Your task to perform on an android device: Go to Yahoo.com Image 0: 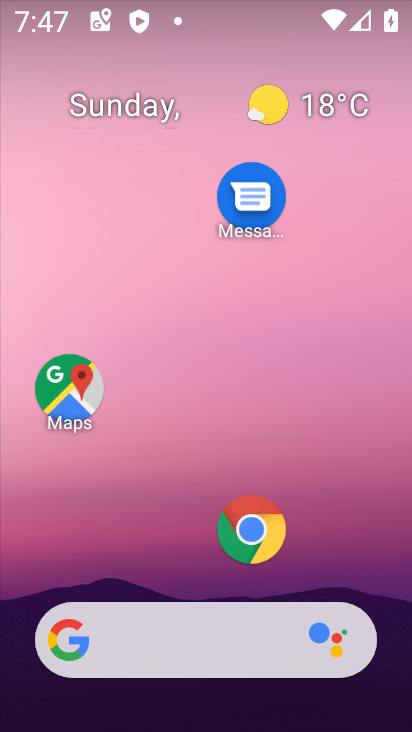
Step 0: click (242, 532)
Your task to perform on an android device: Go to Yahoo.com Image 1: 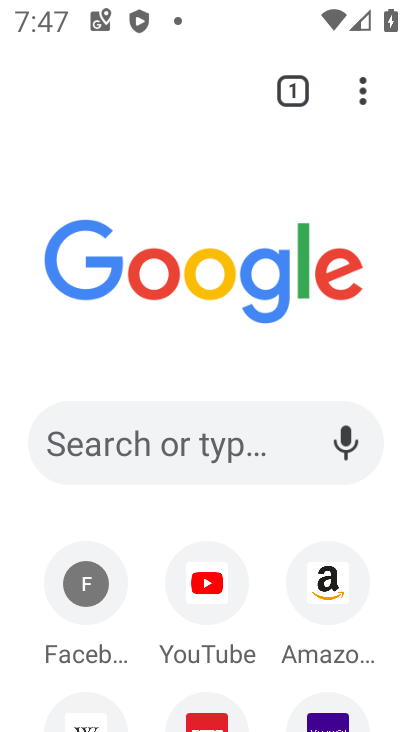
Step 1: click (261, 274)
Your task to perform on an android device: Go to Yahoo.com Image 2: 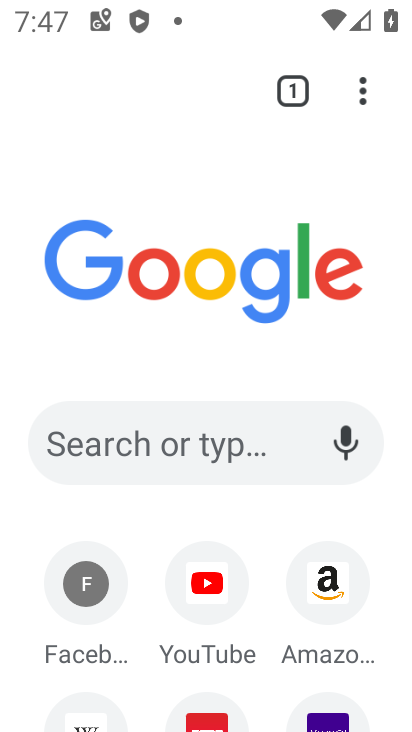
Step 2: click (336, 723)
Your task to perform on an android device: Go to Yahoo.com Image 3: 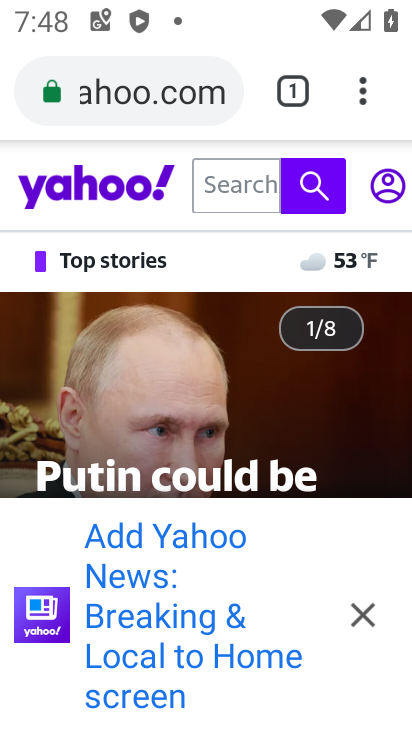
Step 3: task complete